Your task to perform on an android device: Open Youtube and go to the subscriptions tab Image 0: 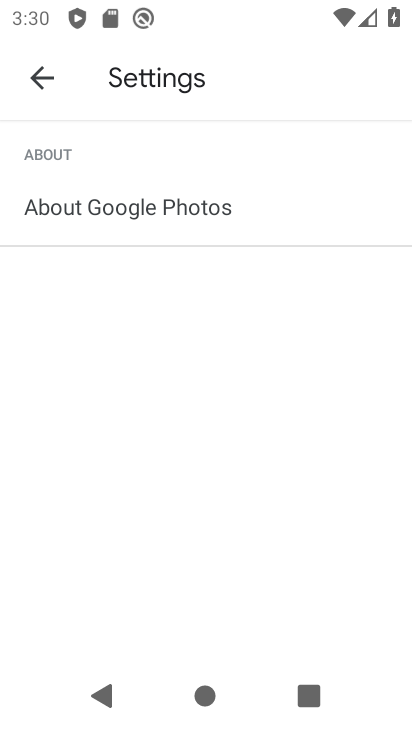
Step 0: press home button
Your task to perform on an android device: Open Youtube and go to the subscriptions tab Image 1: 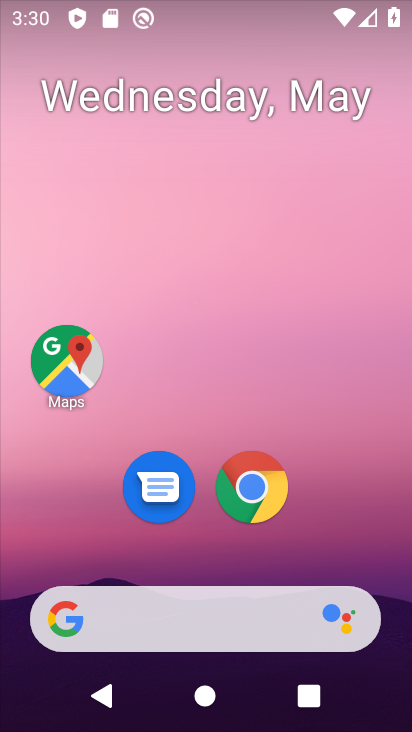
Step 1: drag from (308, 301) to (308, 181)
Your task to perform on an android device: Open Youtube and go to the subscriptions tab Image 2: 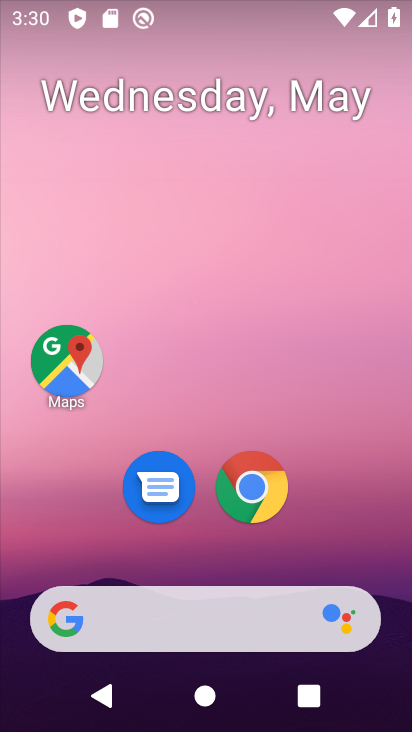
Step 2: drag from (306, 538) to (317, 234)
Your task to perform on an android device: Open Youtube and go to the subscriptions tab Image 3: 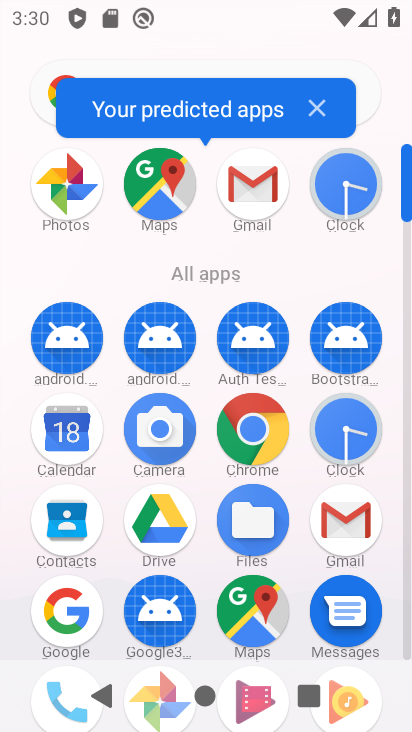
Step 3: drag from (201, 650) to (236, 317)
Your task to perform on an android device: Open Youtube and go to the subscriptions tab Image 4: 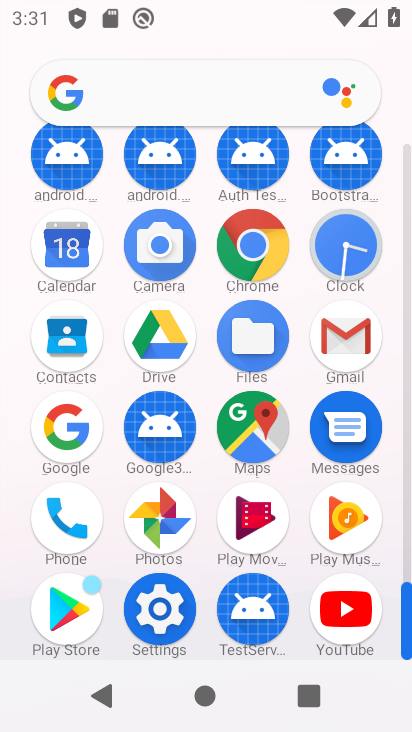
Step 4: click (339, 605)
Your task to perform on an android device: Open Youtube and go to the subscriptions tab Image 5: 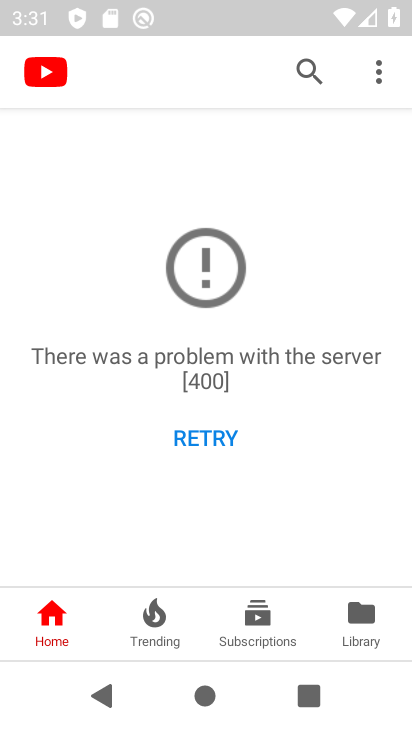
Step 5: click (241, 638)
Your task to perform on an android device: Open Youtube and go to the subscriptions tab Image 6: 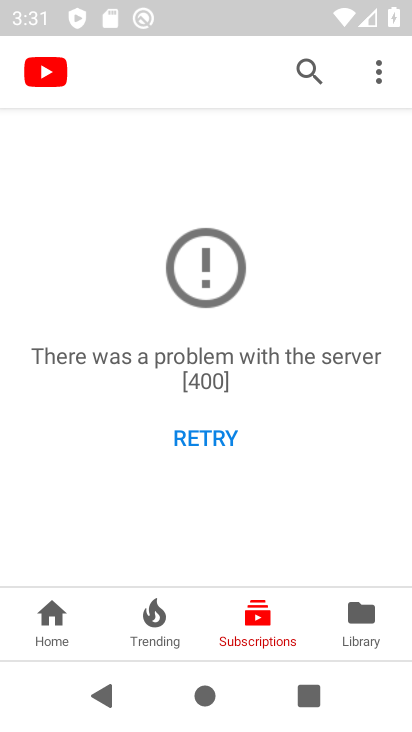
Step 6: task complete